Your task to perform on an android device: Search for vegetarian restaurants on Maps Image 0: 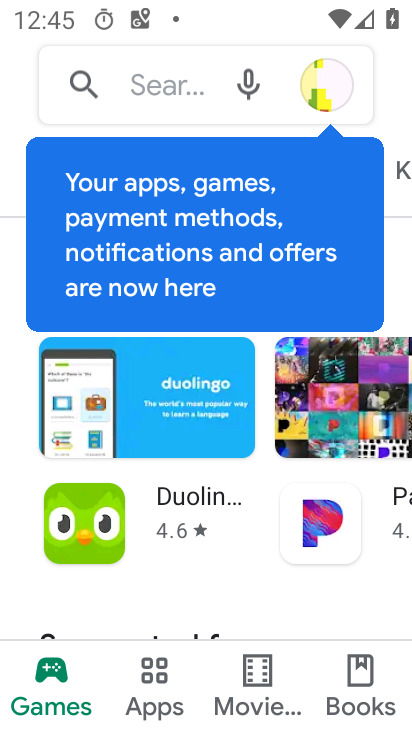
Step 0: press home button
Your task to perform on an android device: Search for vegetarian restaurants on Maps Image 1: 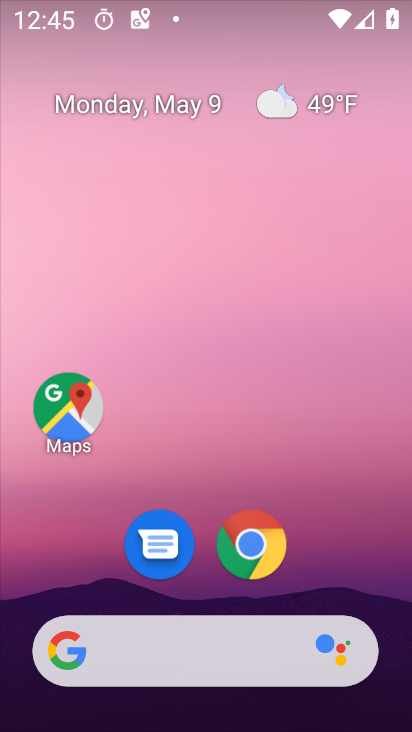
Step 1: drag from (291, 632) to (278, 80)
Your task to perform on an android device: Search for vegetarian restaurants on Maps Image 2: 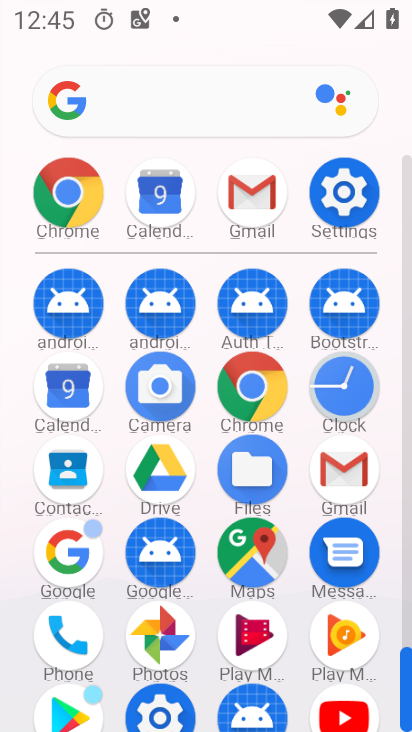
Step 2: click (254, 572)
Your task to perform on an android device: Search for vegetarian restaurants on Maps Image 3: 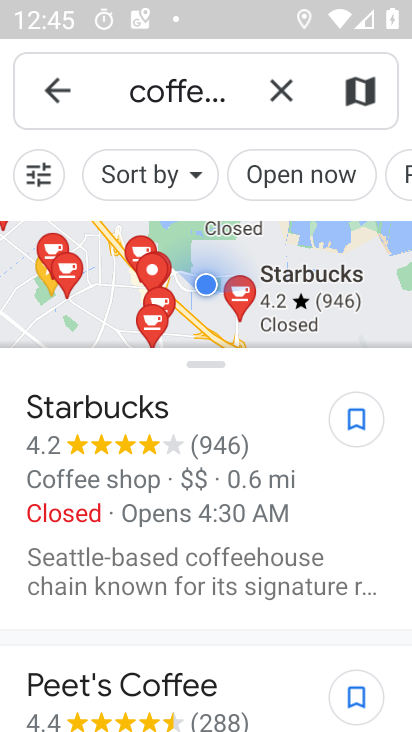
Step 3: click (276, 93)
Your task to perform on an android device: Search for vegetarian restaurants on Maps Image 4: 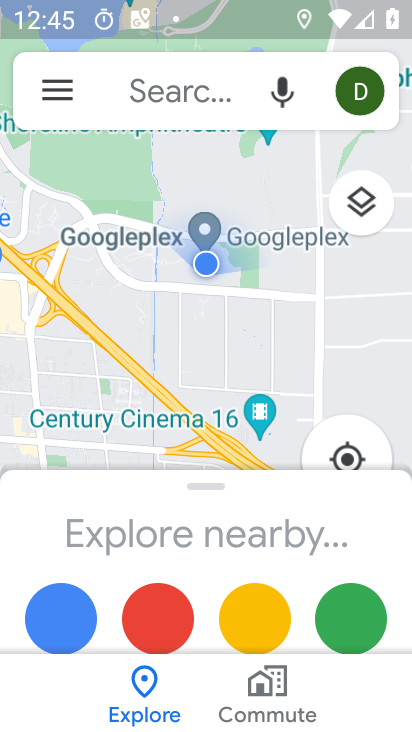
Step 4: click (230, 97)
Your task to perform on an android device: Search for vegetarian restaurants on Maps Image 5: 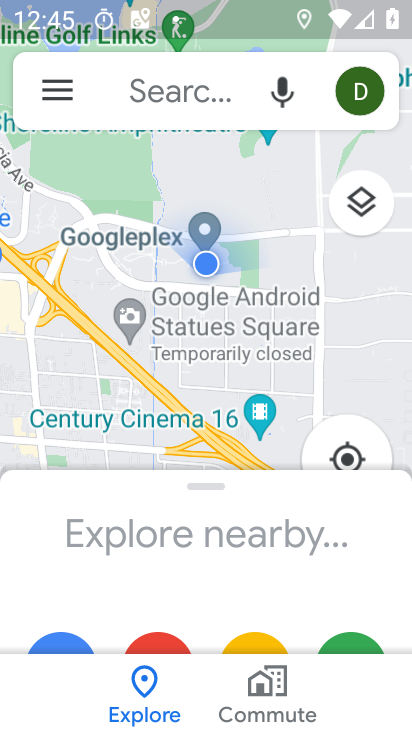
Step 5: click (230, 97)
Your task to perform on an android device: Search for vegetarian restaurants on Maps Image 6: 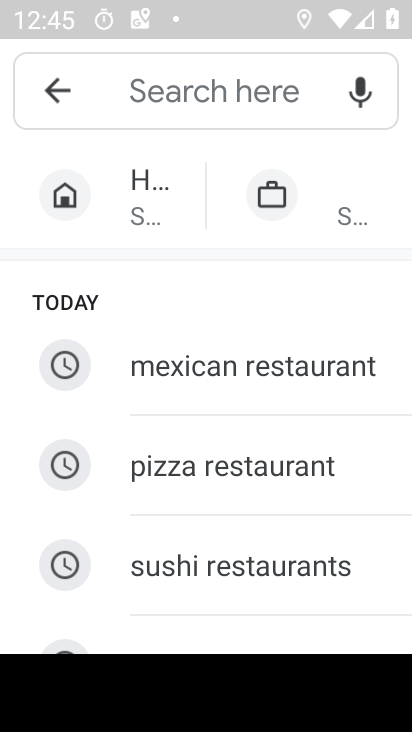
Step 6: type "vegetarian restaurant"
Your task to perform on an android device: Search for vegetarian restaurants on Maps Image 7: 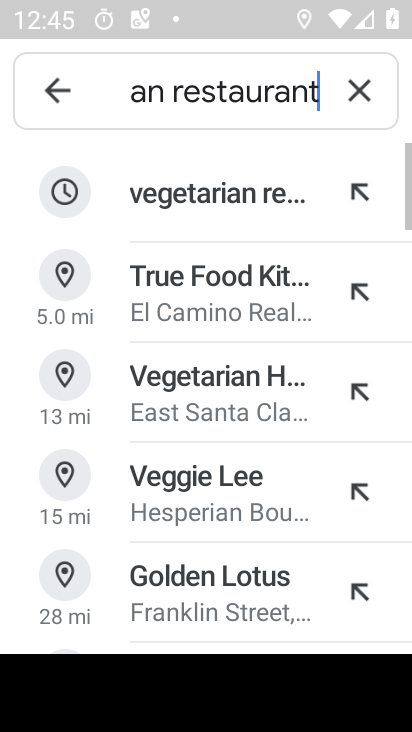
Step 7: click (242, 196)
Your task to perform on an android device: Search for vegetarian restaurants on Maps Image 8: 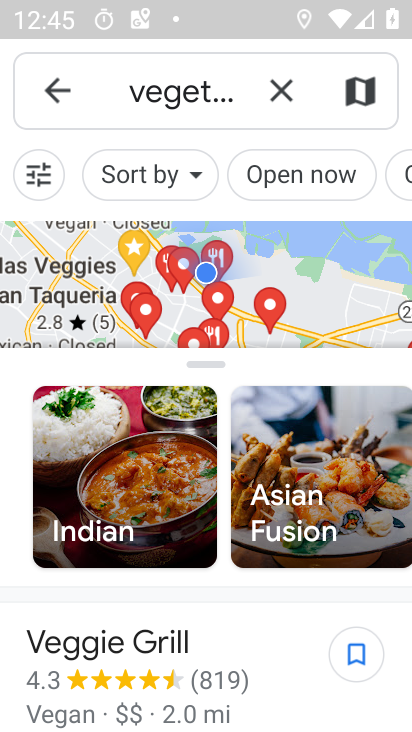
Step 8: task complete